Your task to perform on an android device: Go to Reddit.com Image 0: 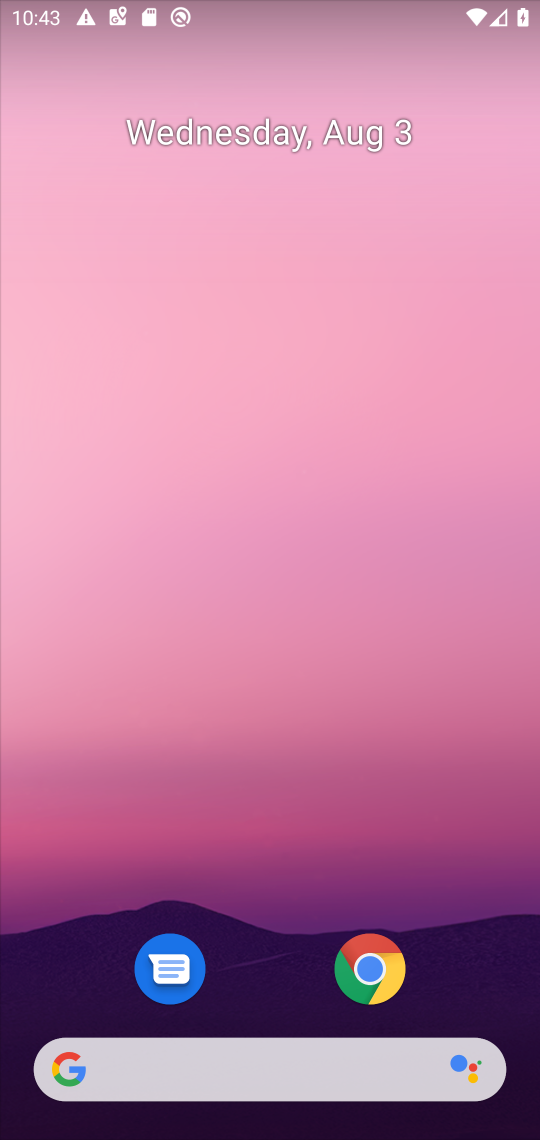
Step 0: drag from (299, 1027) to (83, 185)
Your task to perform on an android device: Go to Reddit.com Image 1: 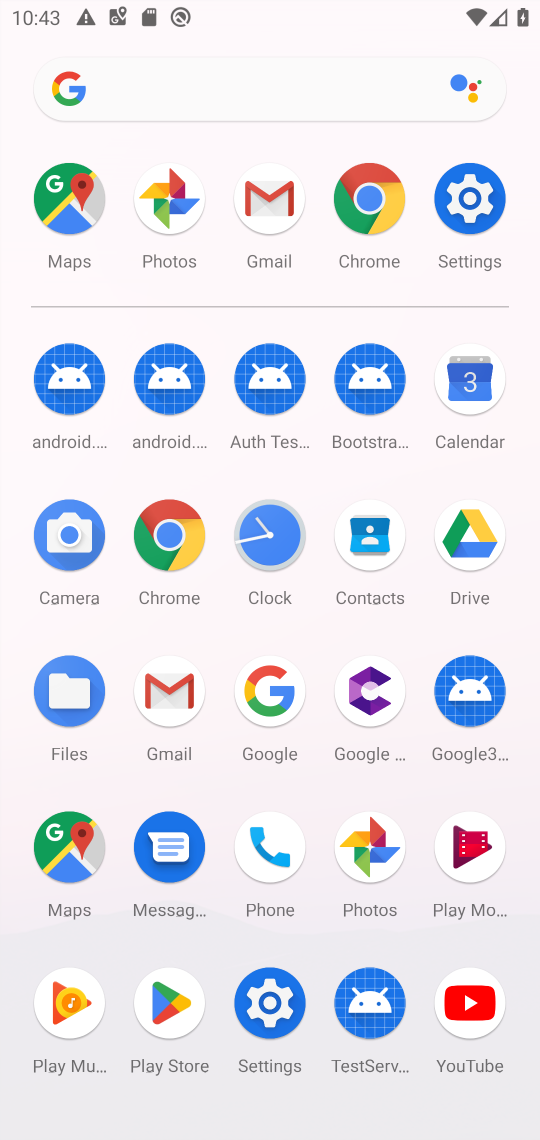
Step 1: click (263, 569)
Your task to perform on an android device: Go to Reddit.com Image 2: 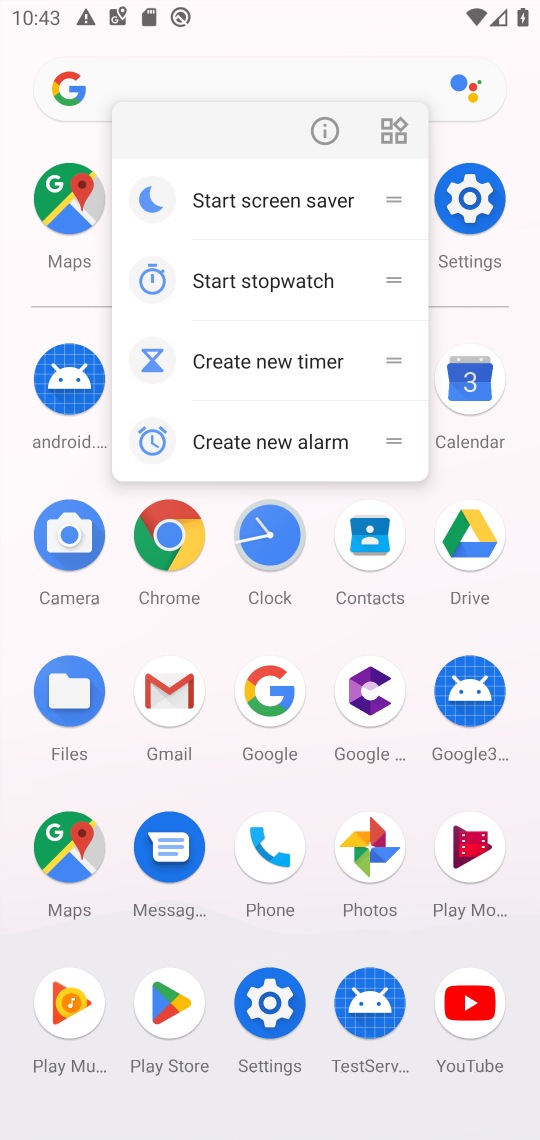
Step 2: click (150, 569)
Your task to perform on an android device: Go to Reddit.com Image 3: 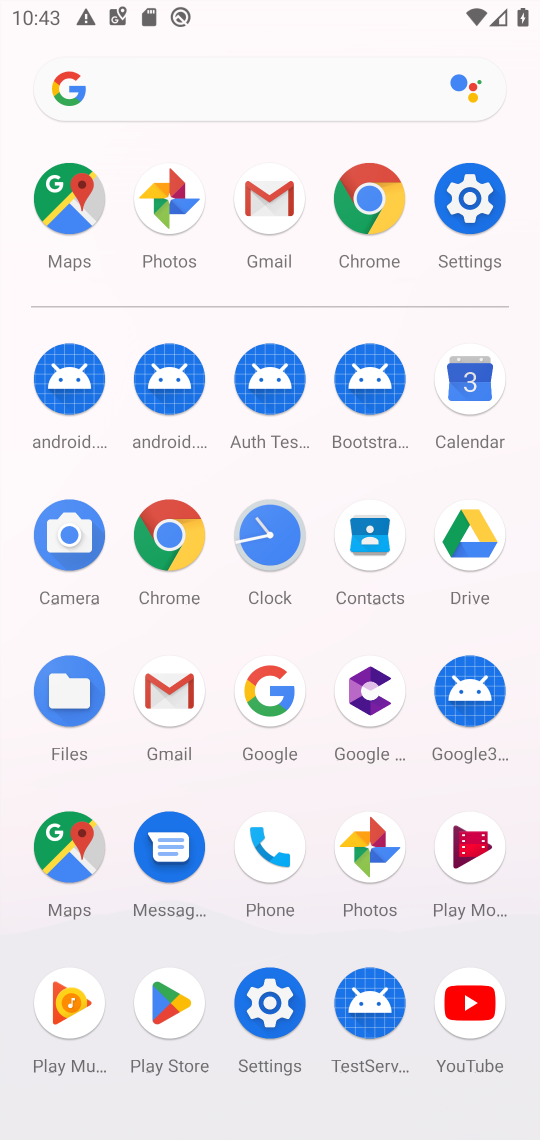
Step 3: click (160, 541)
Your task to perform on an android device: Go to Reddit.com Image 4: 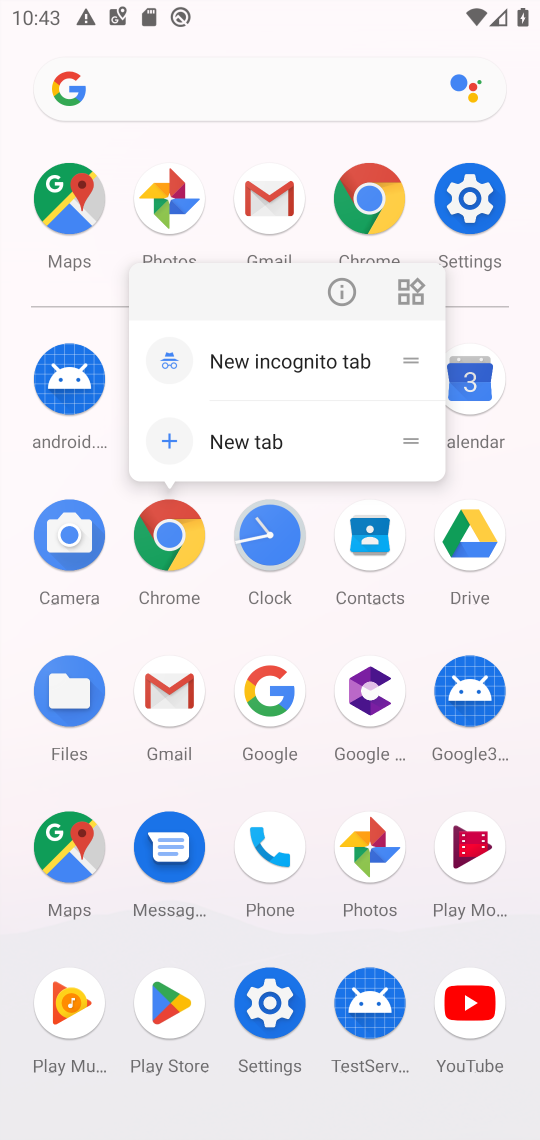
Step 4: click (161, 540)
Your task to perform on an android device: Go to Reddit.com Image 5: 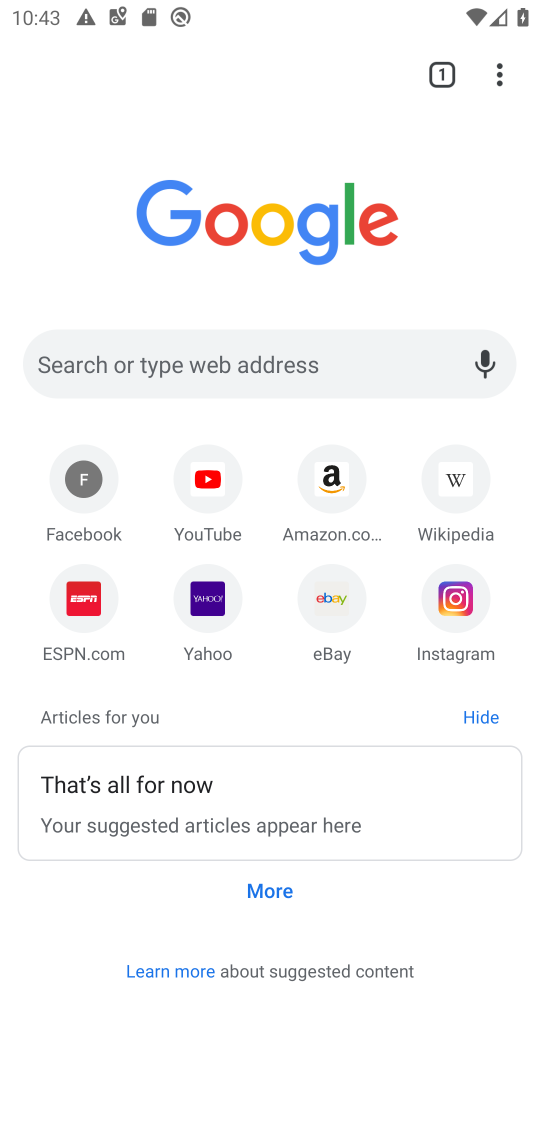
Step 5: click (261, 361)
Your task to perform on an android device: Go to Reddit.com Image 6: 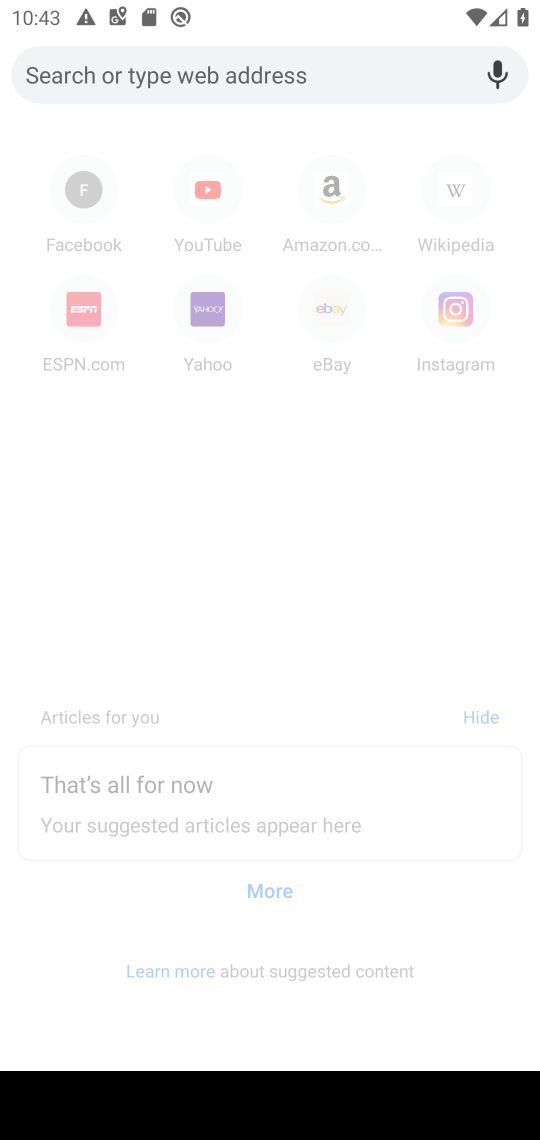
Step 6: type "Reddit.com"
Your task to perform on an android device: Go to Reddit.com Image 7: 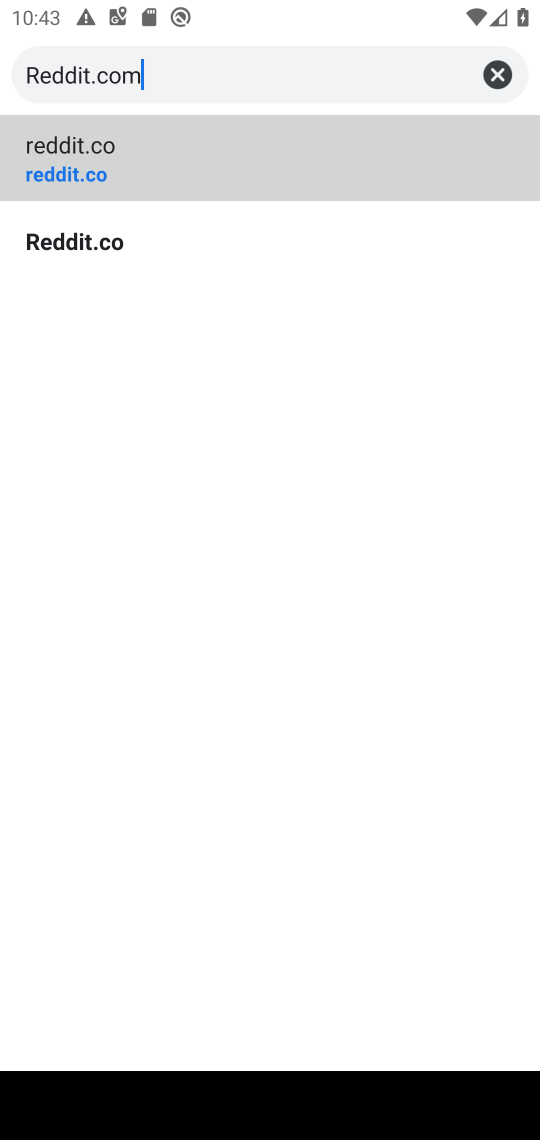
Step 7: type ""
Your task to perform on an android device: Go to Reddit.com Image 8: 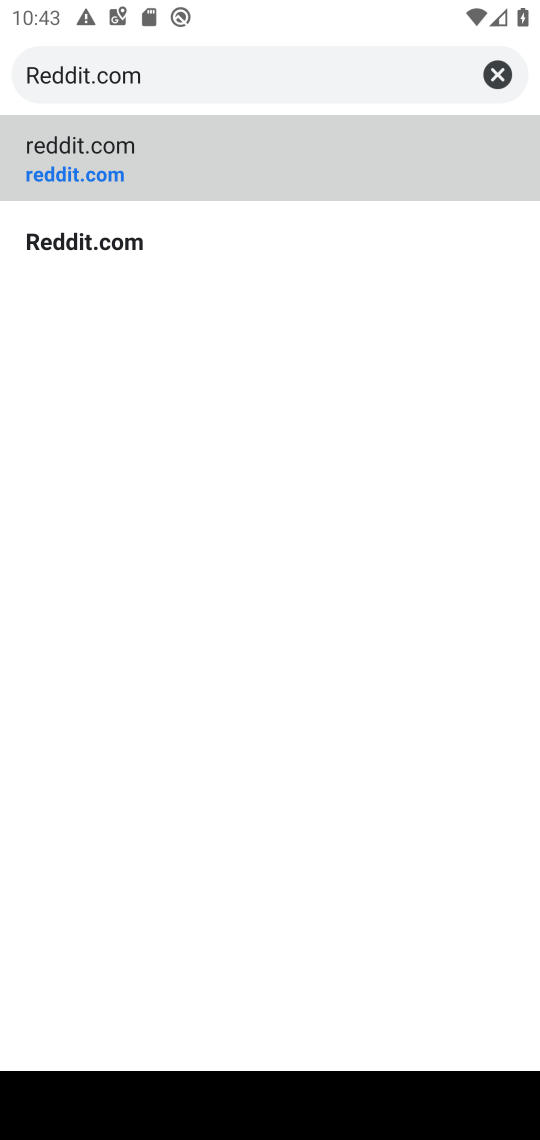
Step 8: click (75, 152)
Your task to perform on an android device: Go to Reddit.com Image 9: 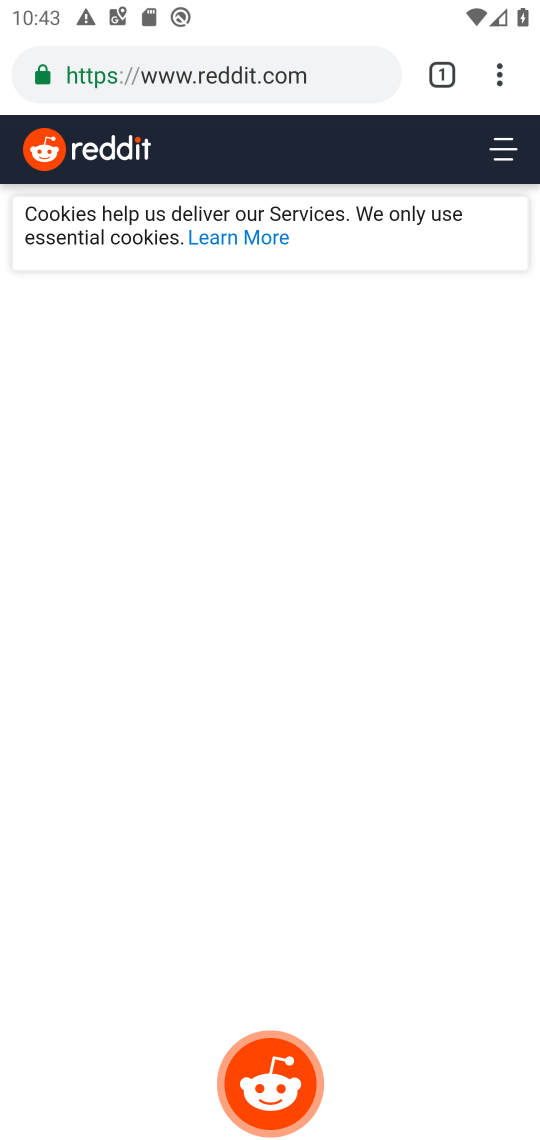
Step 9: task complete